Your task to perform on an android device: Go to Android settings Image 0: 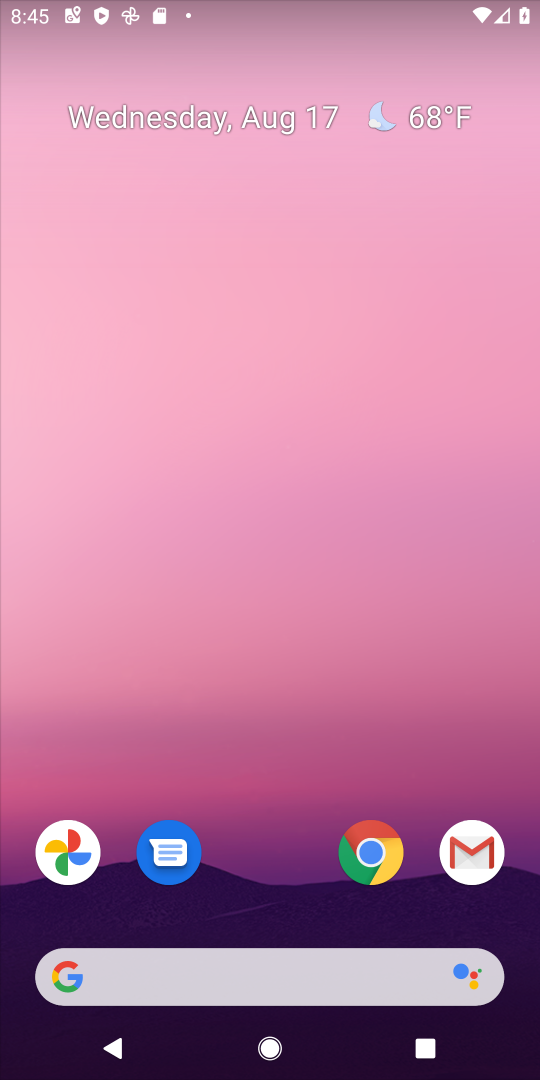
Step 0: drag from (281, 894) to (142, 111)
Your task to perform on an android device: Go to Android settings Image 1: 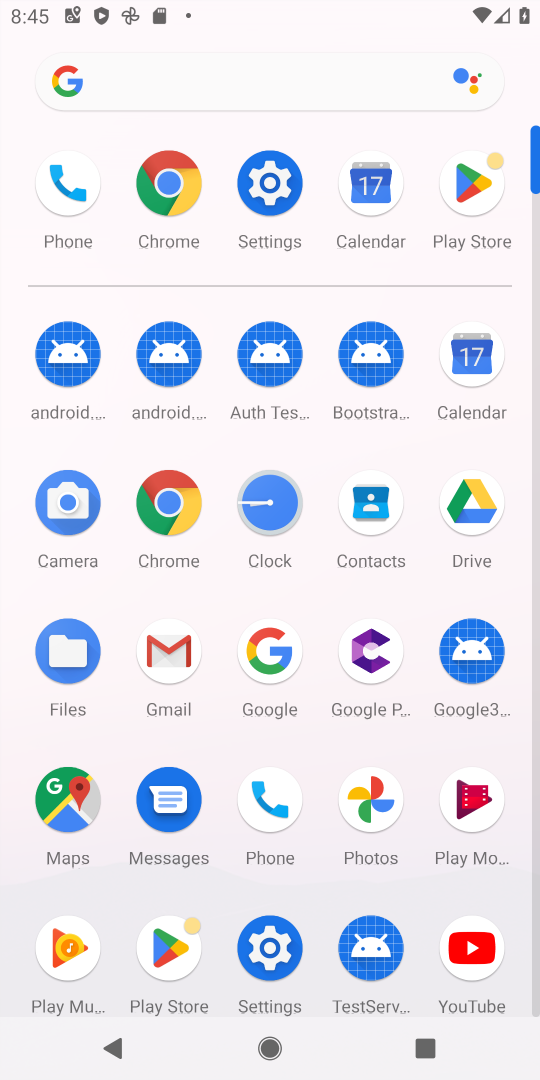
Step 1: click (262, 187)
Your task to perform on an android device: Go to Android settings Image 2: 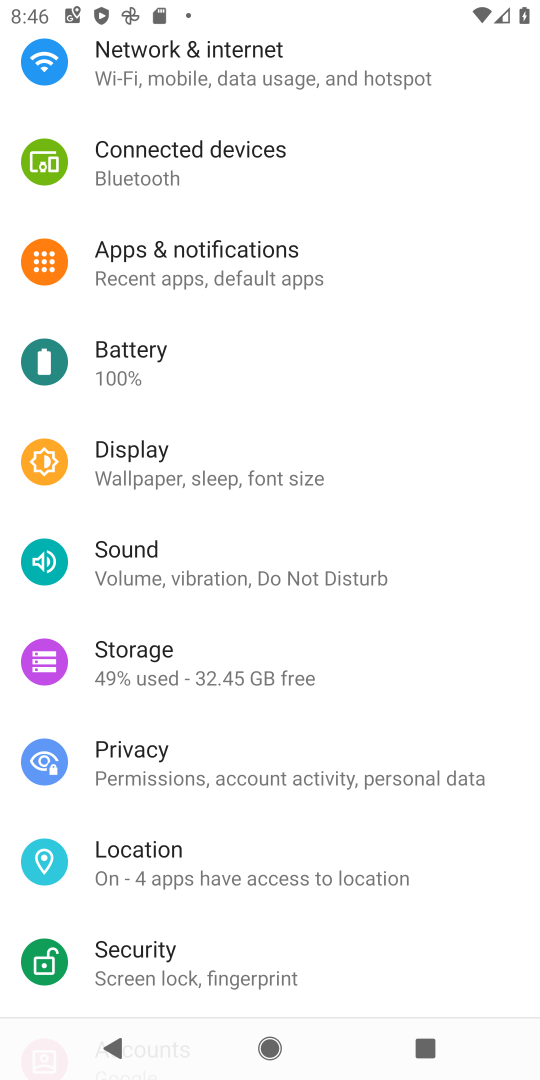
Step 2: task complete